Your task to perform on an android device: Go to Yahoo.com Image 0: 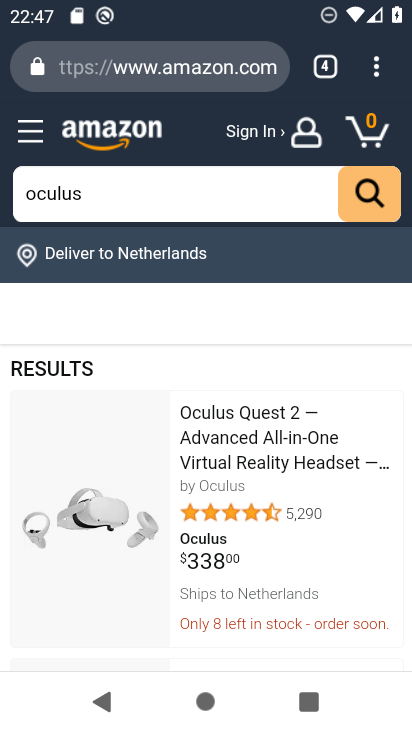
Step 0: press home button
Your task to perform on an android device: Go to Yahoo.com Image 1: 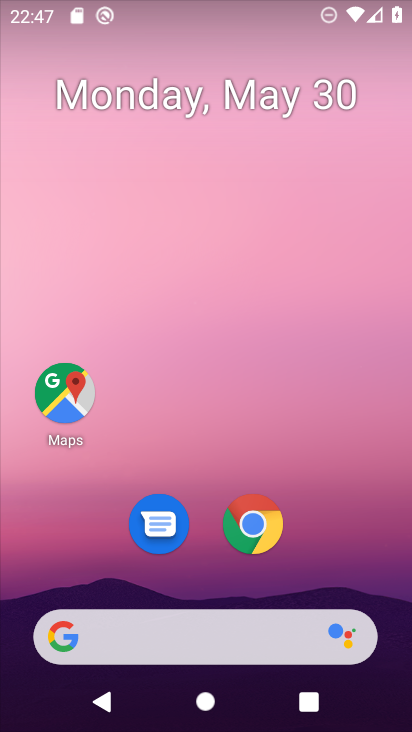
Step 1: click (209, 625)
Your task to perform on an android device: Go to Yahoo.com Image 2: 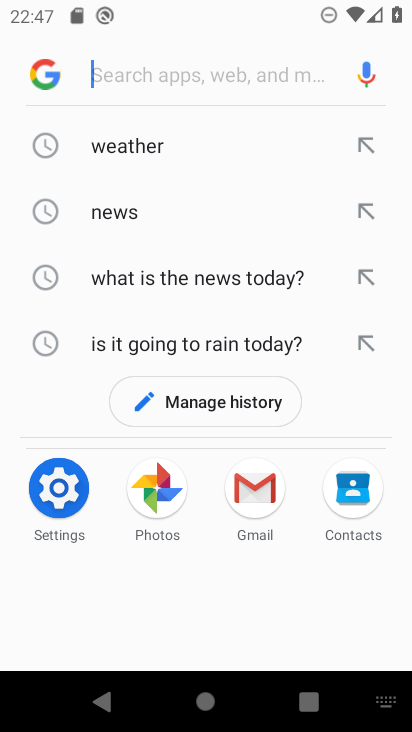
Step 2: type "yahoo.com"
Your task to perform on an android device: Go to Yahoo.com Image 3: 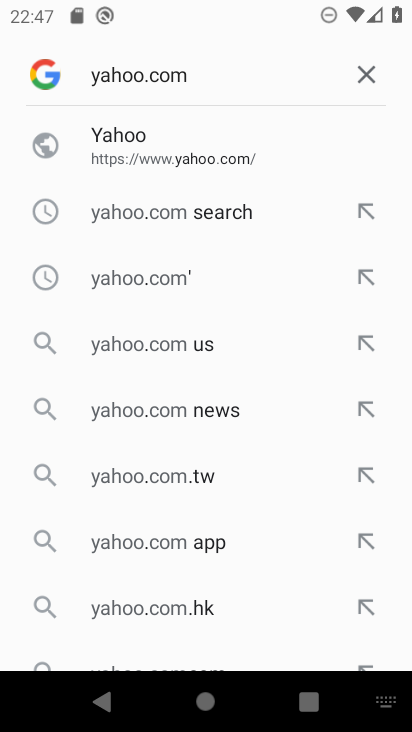
Step 3: click (171, 149)
Your task to perform on an android device: Go to Yahoo.com Image 4: 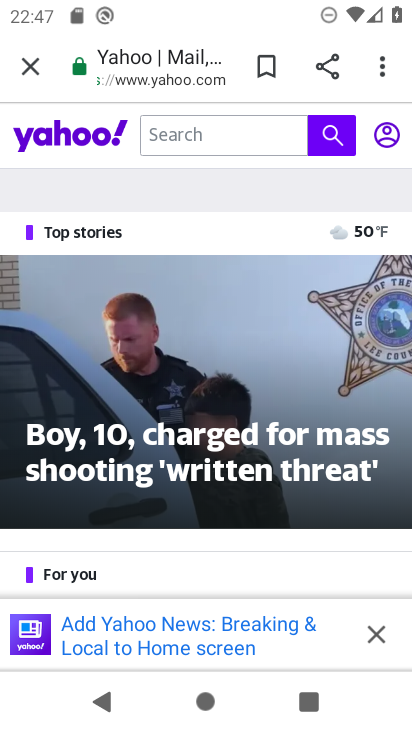
Step 4: task complete